Your task to perform on an android device: install app "Calculator" Image 0: 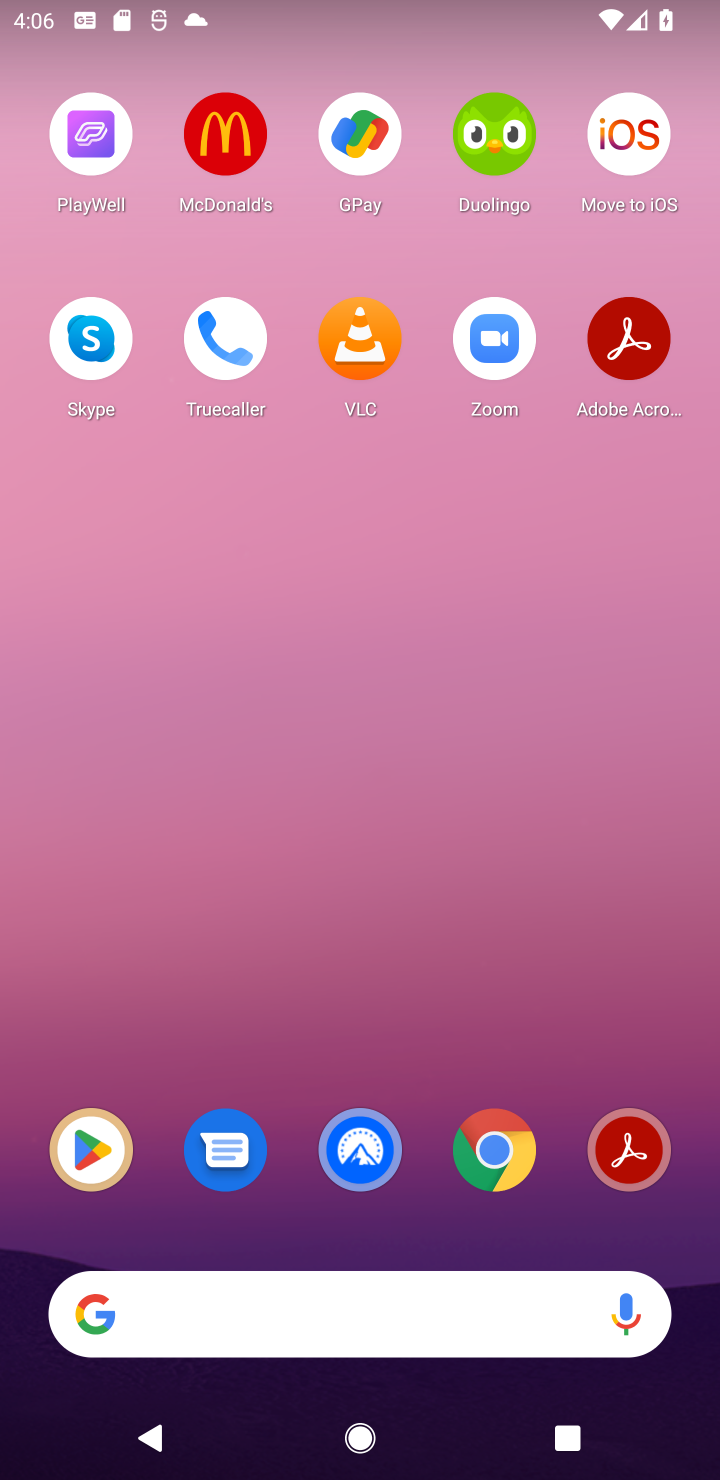
Step 0: click (98, 1168)
Your task to perform on an android device: install app "Calculator" Image 1: 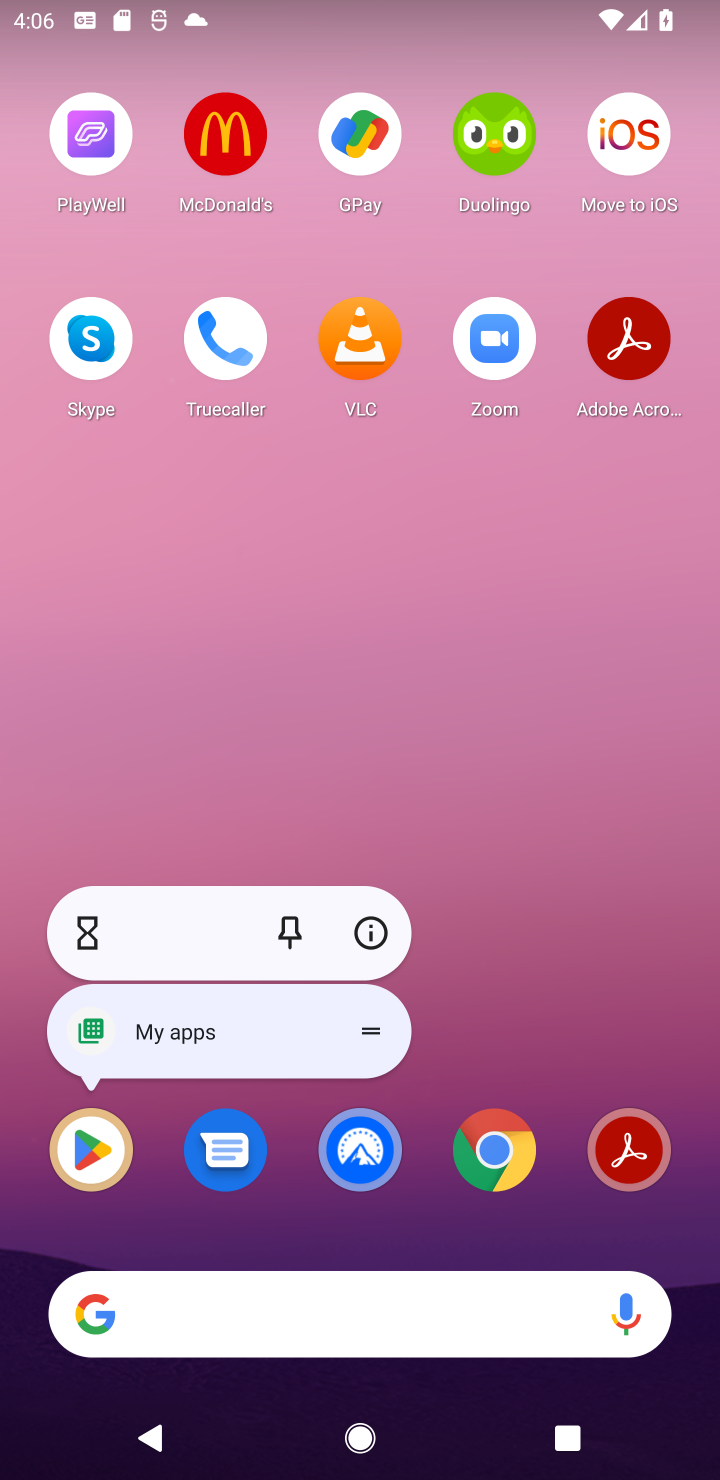
Step 1: click (476, 994)
Your task to perform on an android device: install app "Calculator" Image 2: 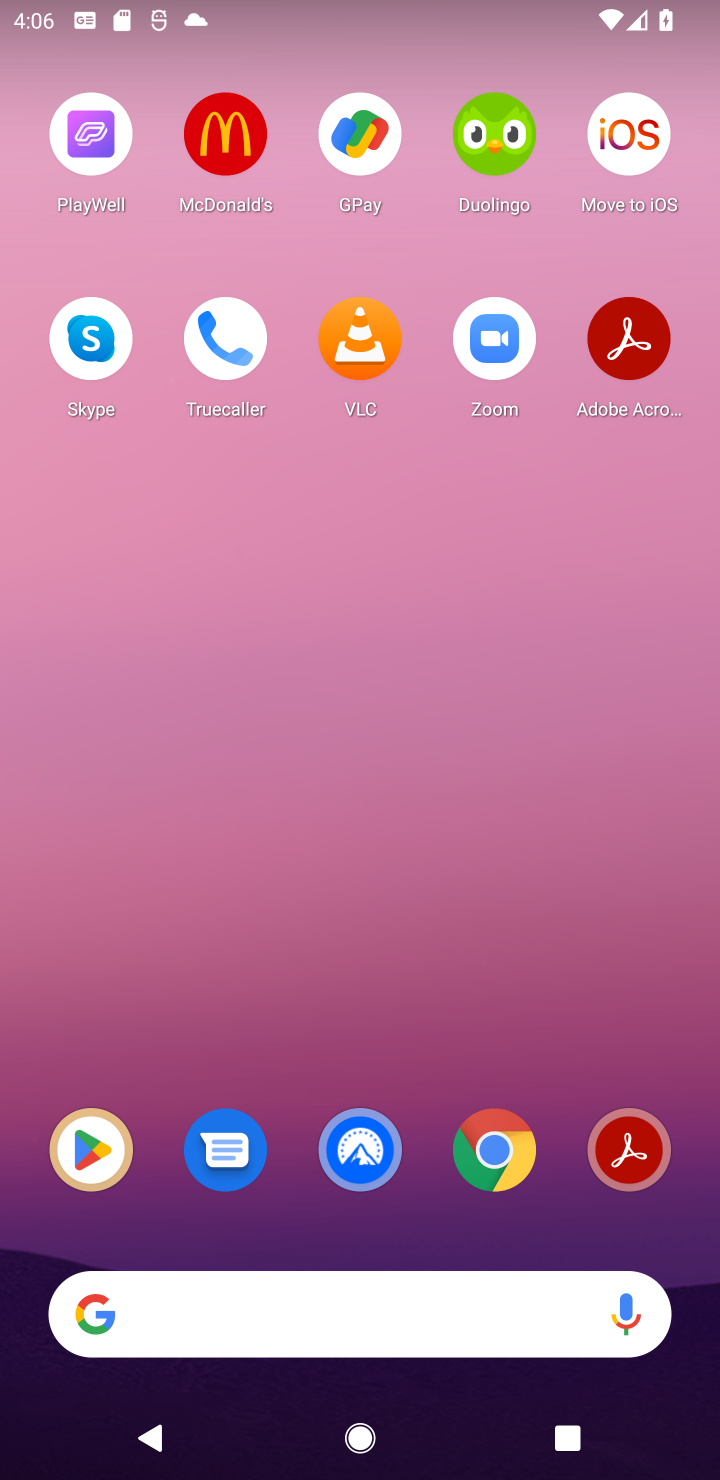
Step 2: click (100, 1140)
Your task to perform on an android device: install app "Calculator" Image 3: 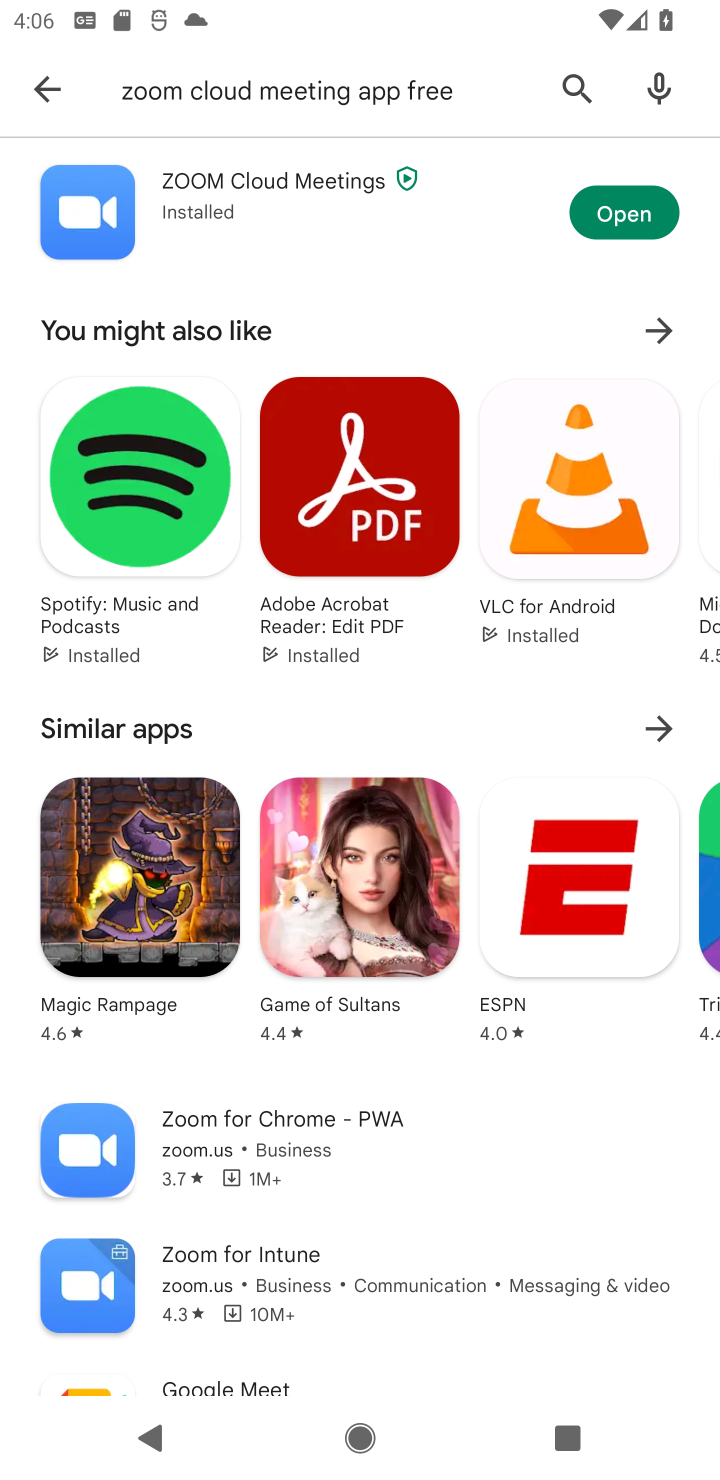
Step 3: click (565, 100)
Your task to perform on an android device: install app "Calculator" Image 4: 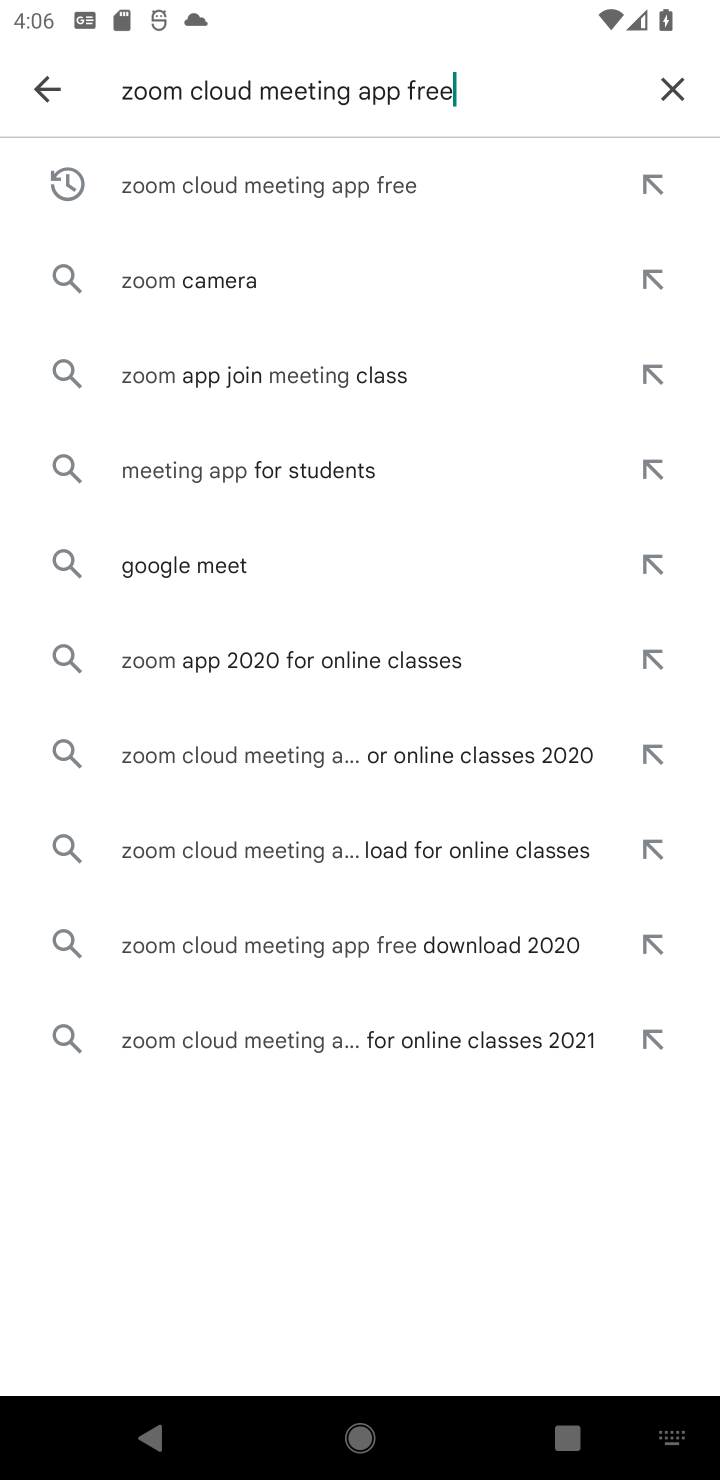
Step 4: click (671, 109)
Your task to perform on an android device: install app "Calculator" Image 5: 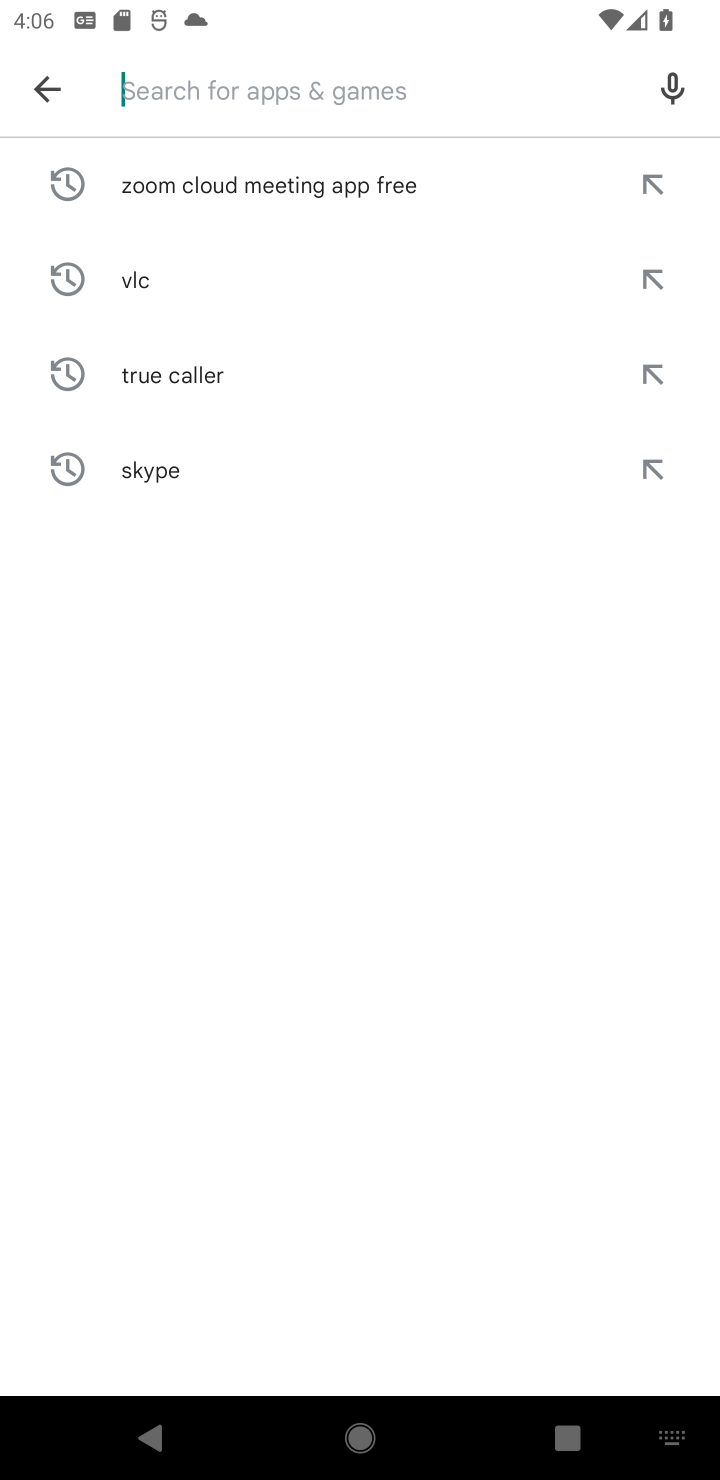
Step 5: click (681, 111)
Your task to perform on an android device: install app "Calculator" Image 6: 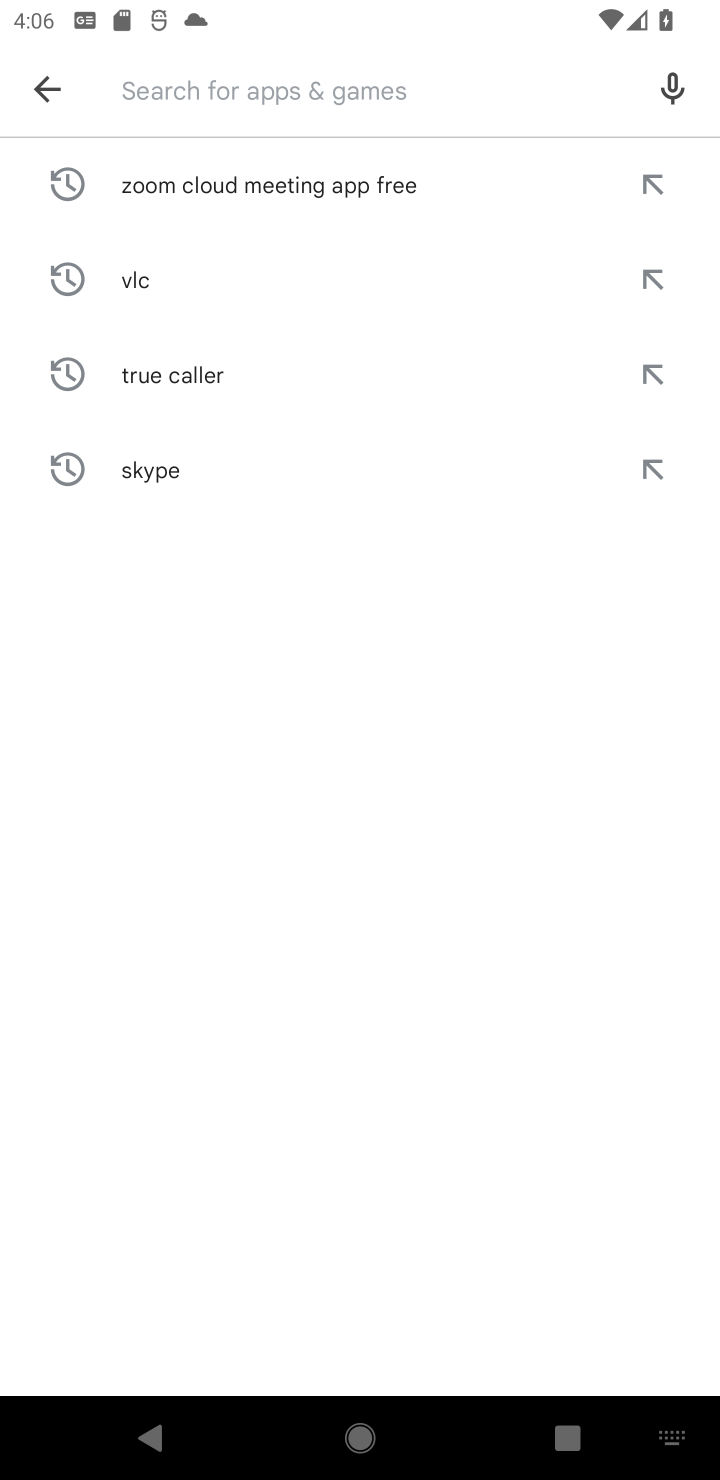
Step 6: click (681, 111)
Your task to perform on an android device: install app "Calculator" Image 7: 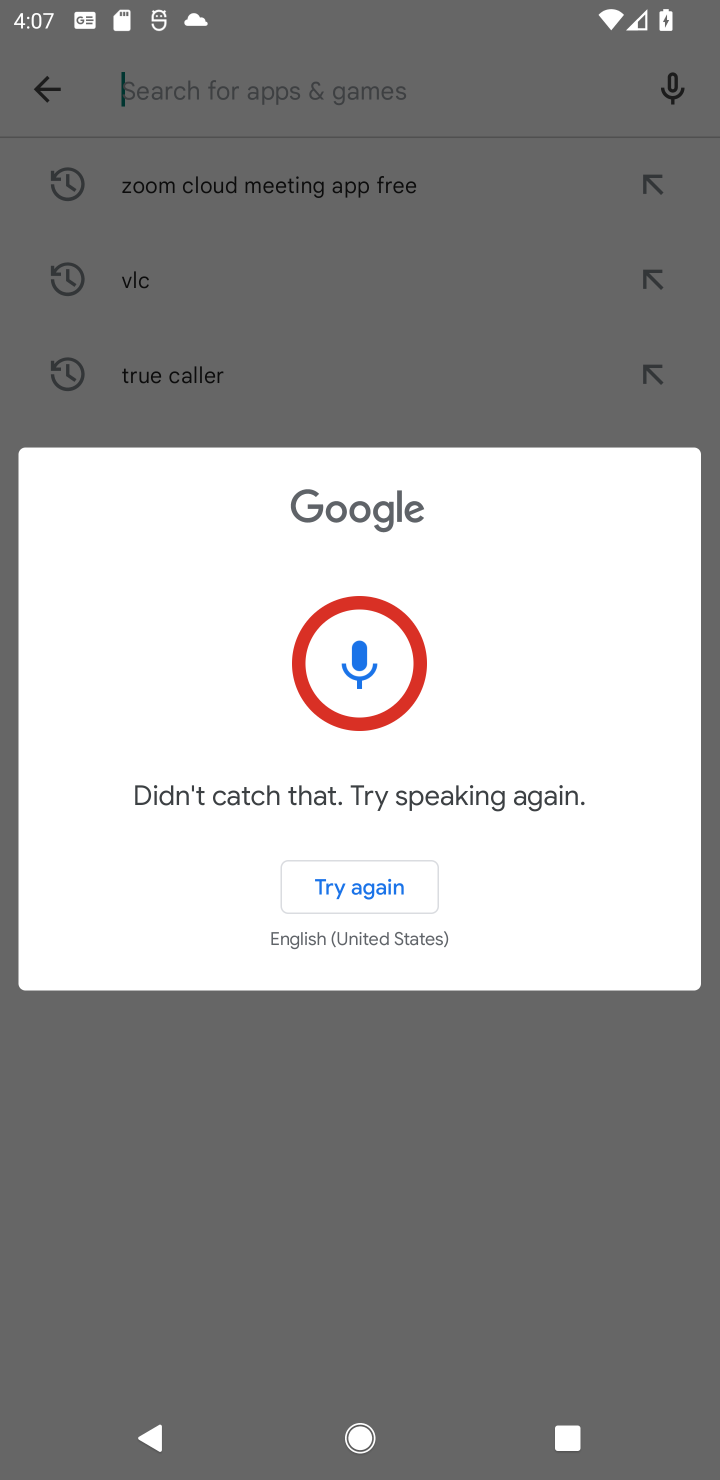
Step 7: click (443, 1068)
Your task to perform on an android device: install app "Calculator" Image 8: 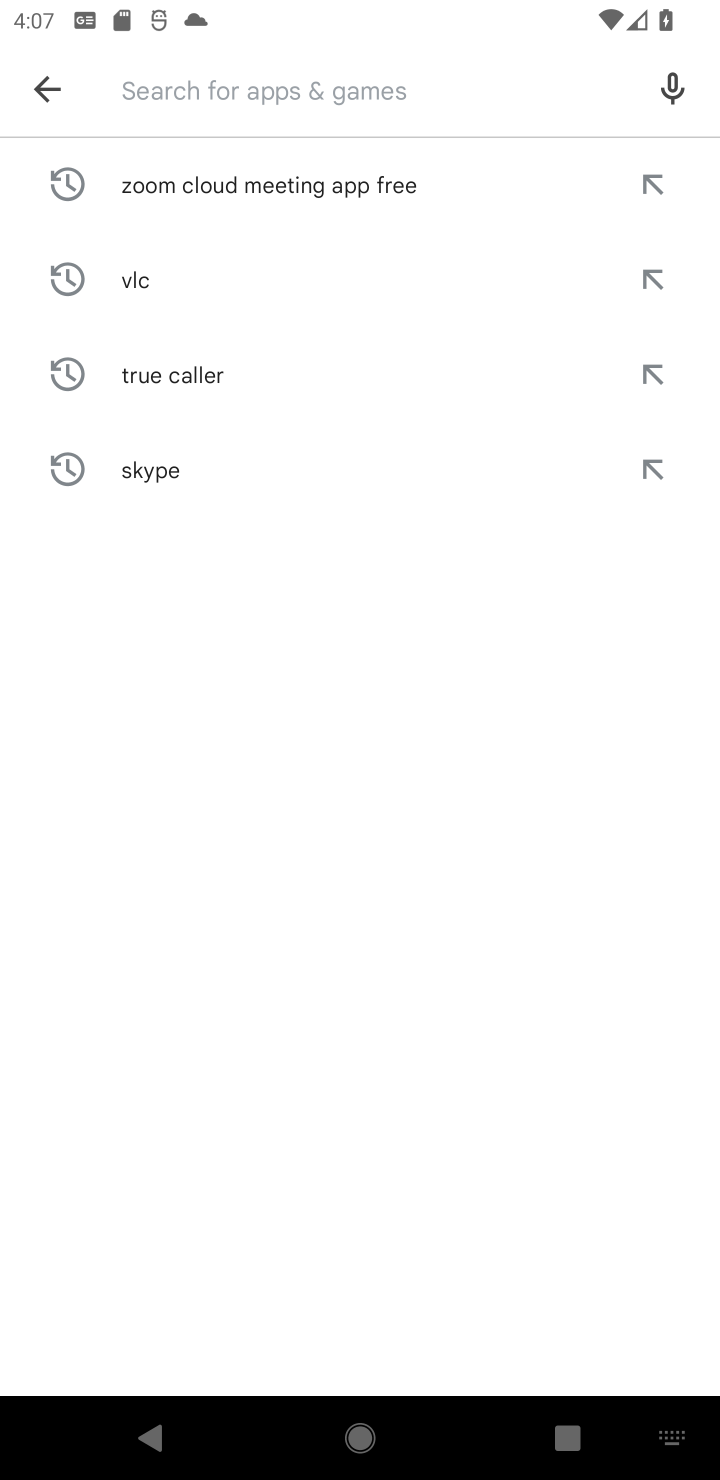
Step 8: type "calculator"
Your task to perform on an android device: install app "Calculator" Image 9: 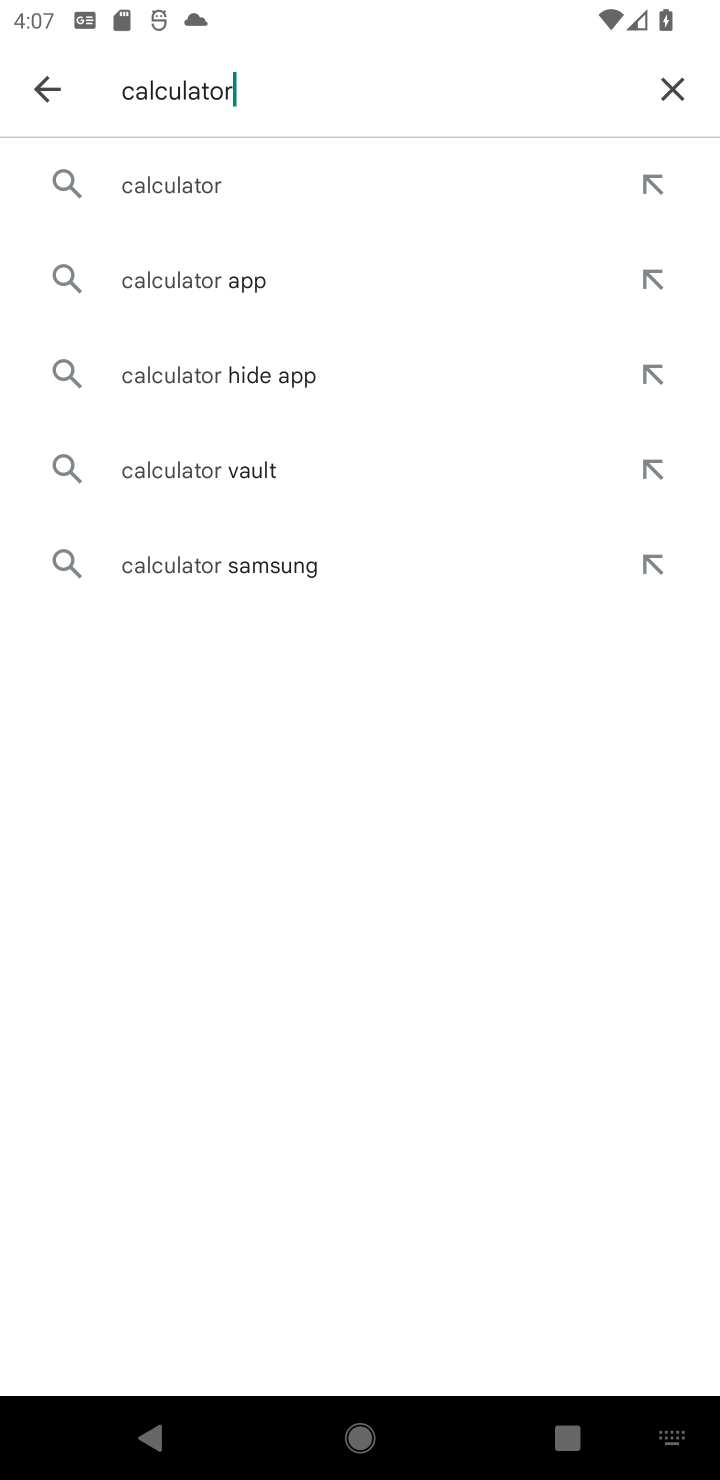
Step 9: click (280, 193)
Your task to perform on an android device: install app "Calculator" Image 10: 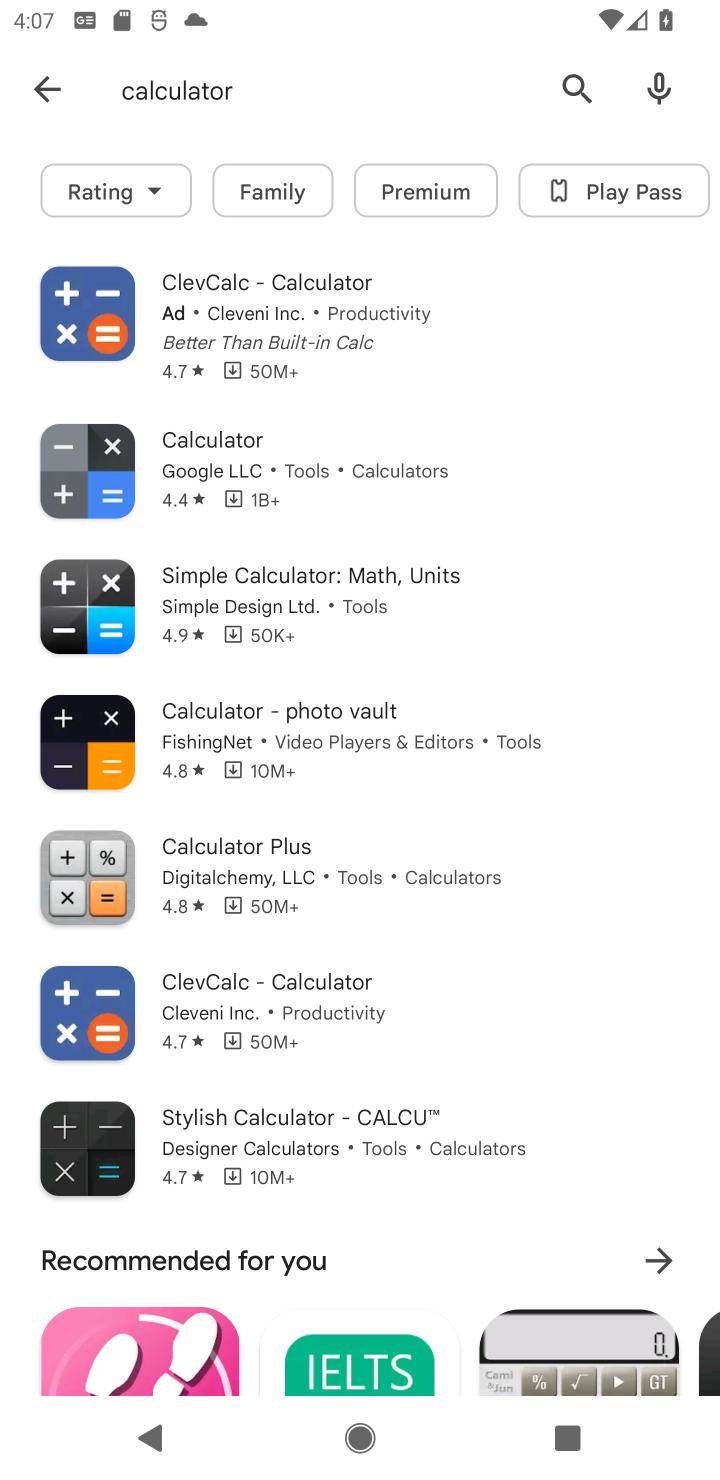
Step 10: click (441, 361)
Your task to perform on an android device: install app "Calculator" Image 11: 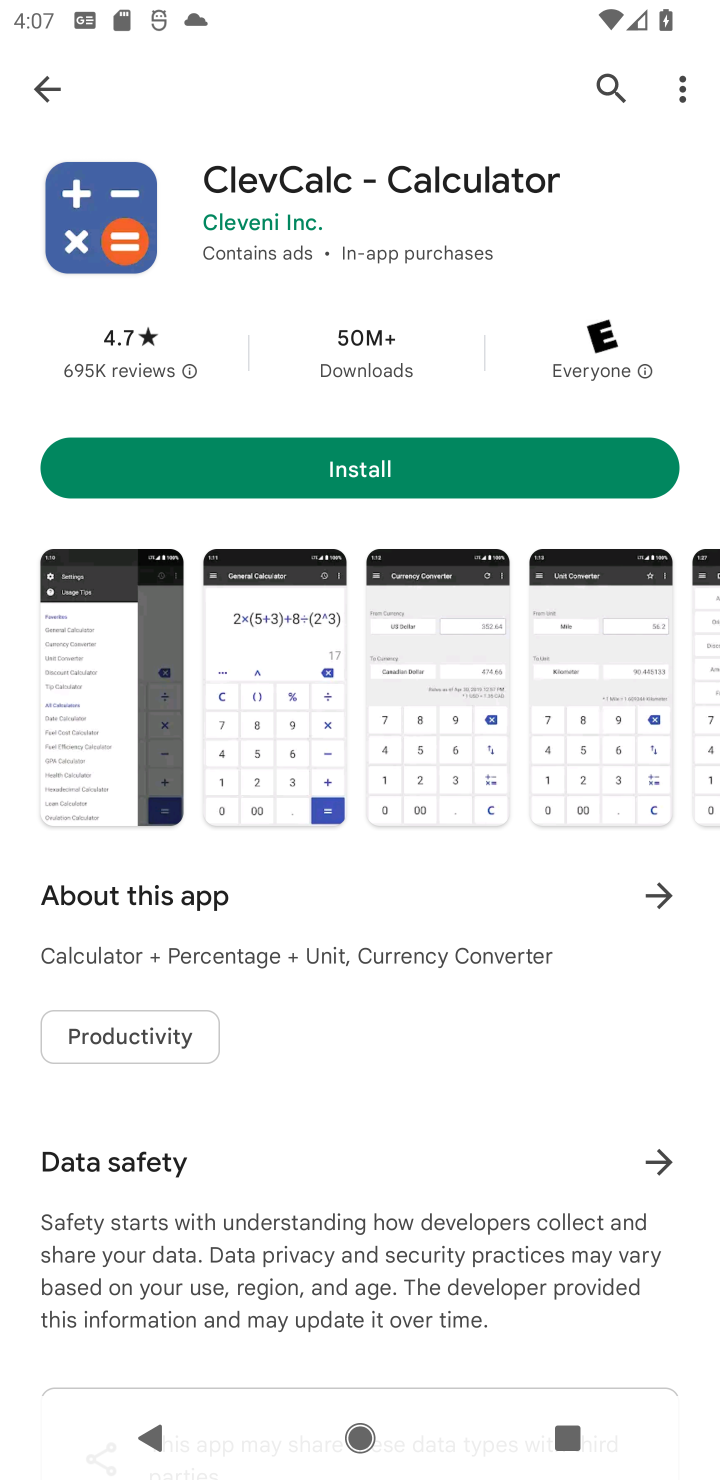
Step 11: click (448, 458)
Your task to perform on an android device: install app "Calculator" Image 12: 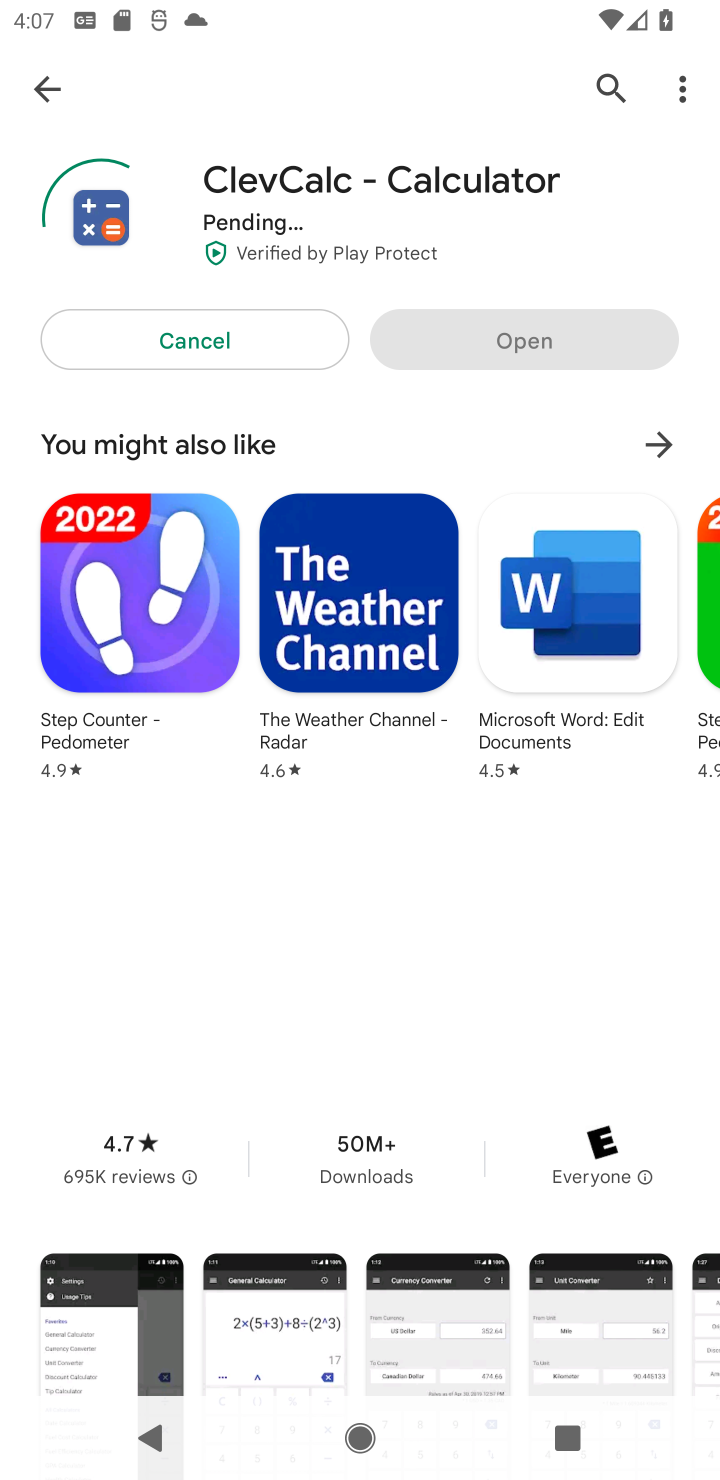
Step 12: task complete